Your task to perform on an android device: turn off smart reply in the gmail app Image 0: 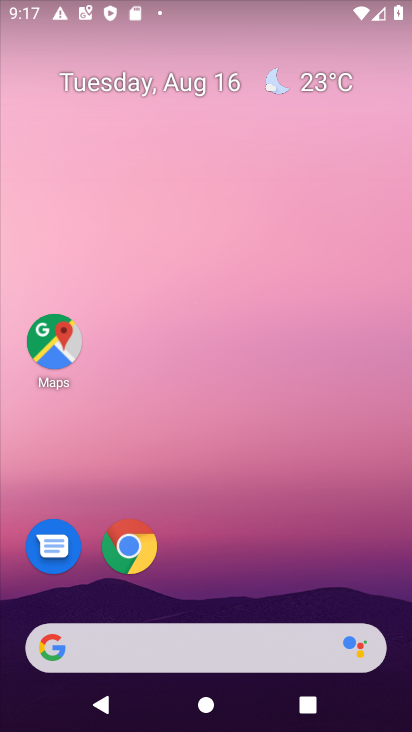
Step 0: drag from (215, 566) to (263, 0)
Your task to perform on an android device: turn off smart reply in the gmail app Image 1: 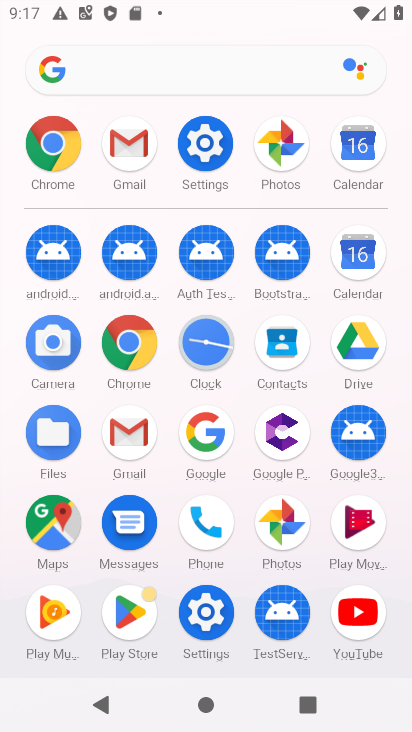
Step 1: click (132, 141)
Your task to perform on an android device: turn off smart reply in the gmail app Image 2: 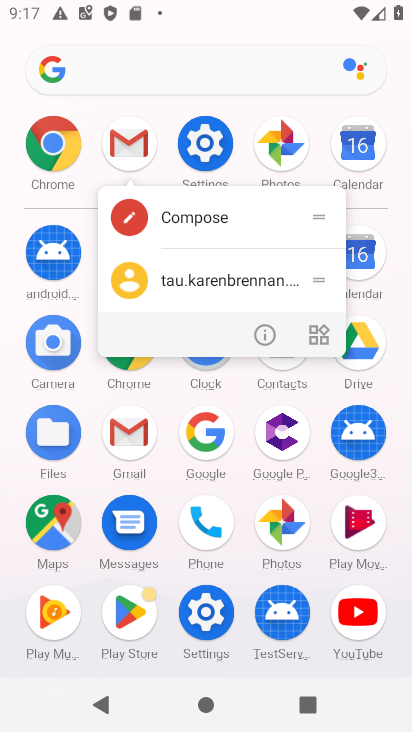
Step 2: click (132, 140)
Your task to perform on an android device: turn off smart reply in the gmail app Image 3: 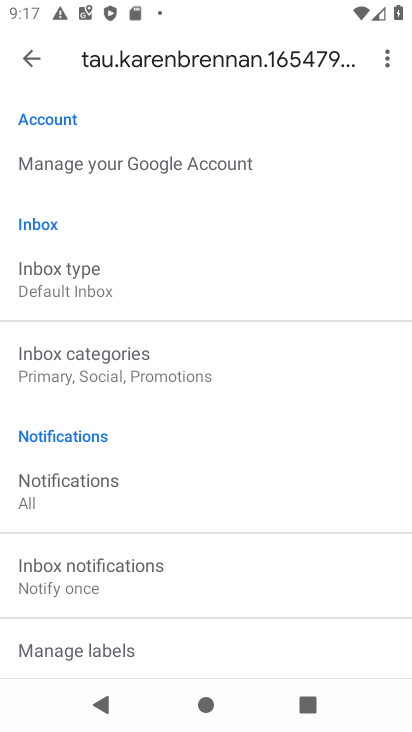
Step 3: task complete